Your task to perform on an android device: Go to location settings Image 0: 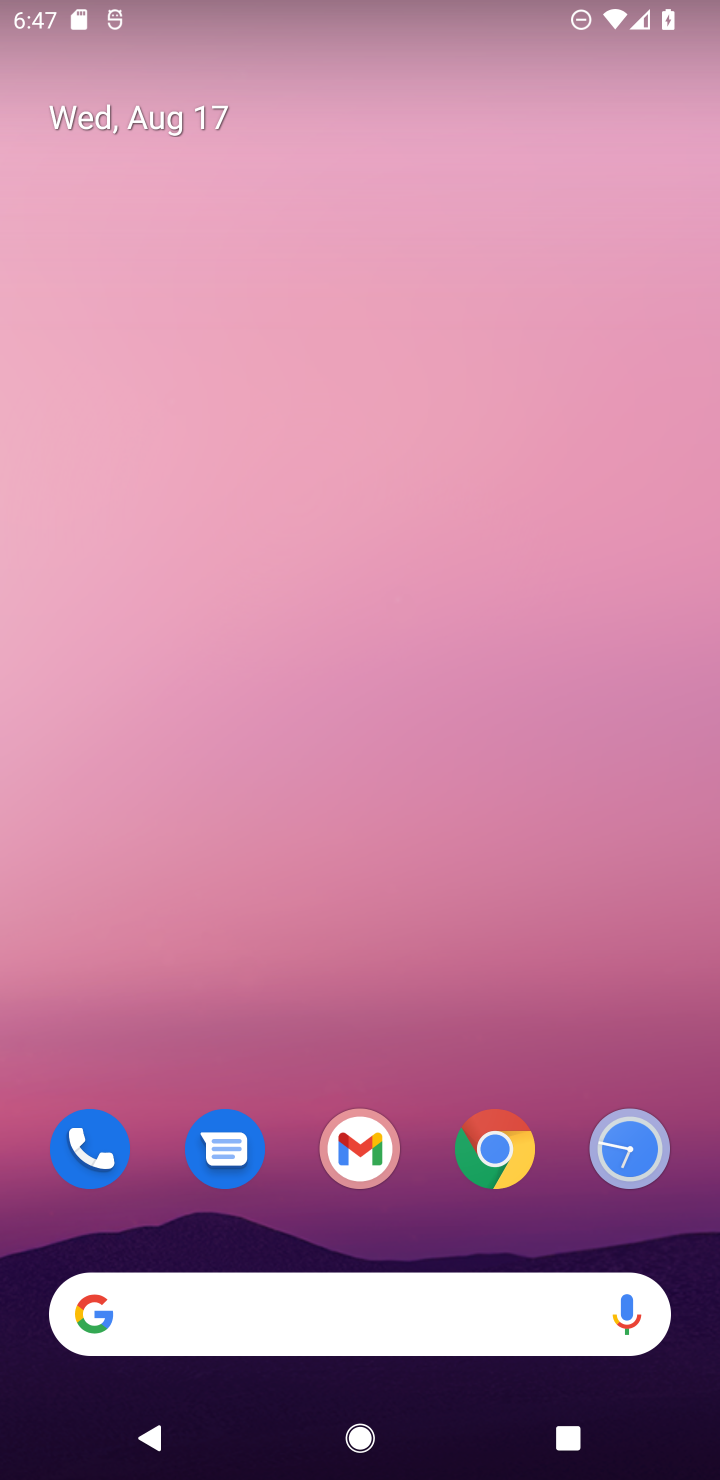
Step 0: drag from (418, 1245) to (671, 123)
Your task to perform on an android device: Go to location settings Image 1: 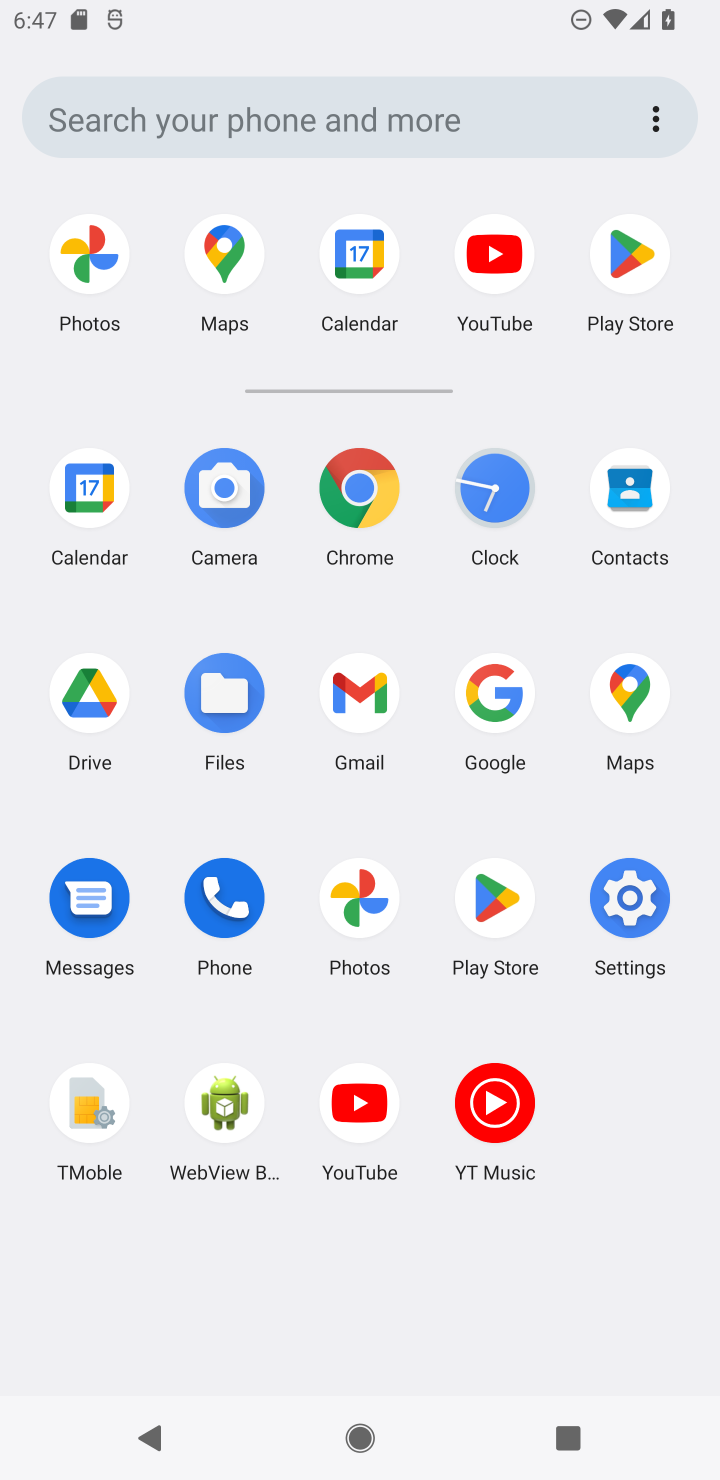
Step 1: click (627, 902)
Your task to perform on an android device: Go to location settings Image 2: 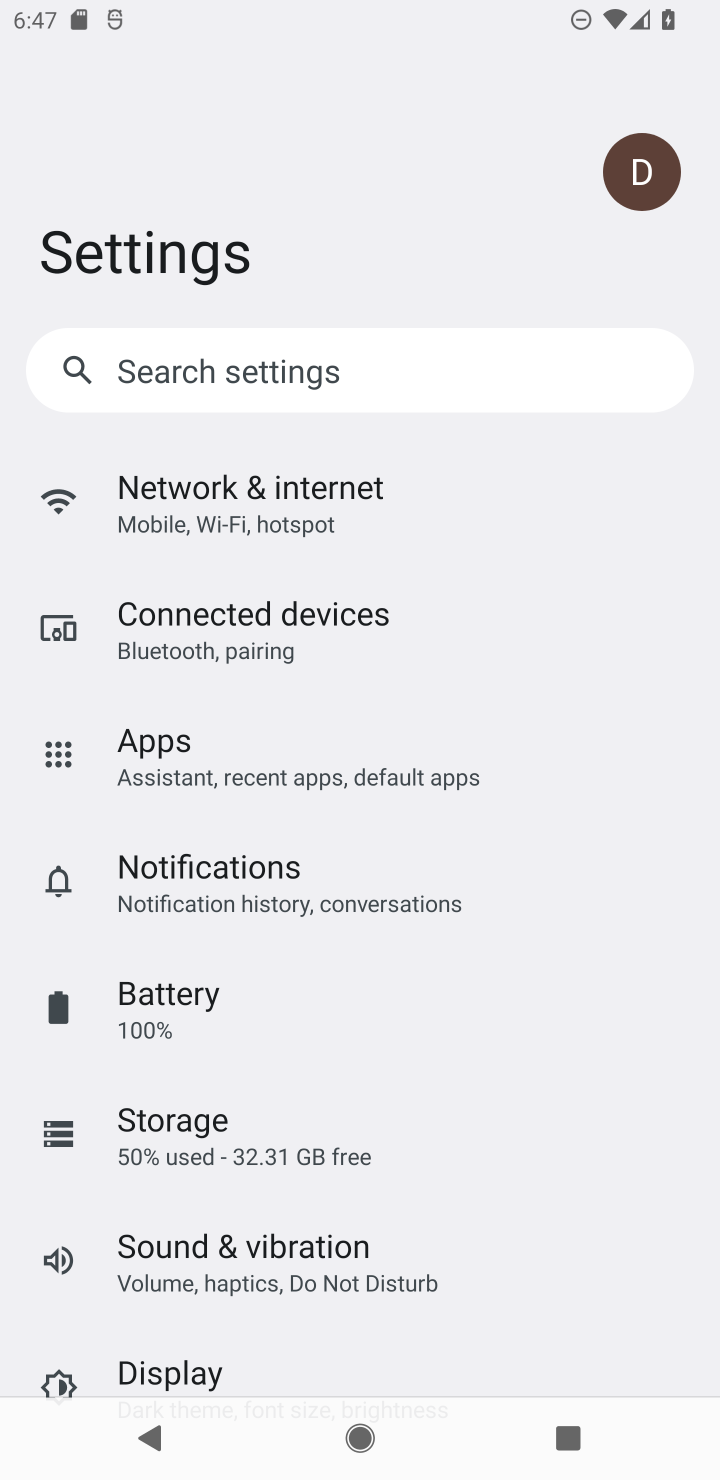
Step 2: drag from (429, 1208) to (418, 555)
Your task to perform on an android device: Go to location settings Image 3: 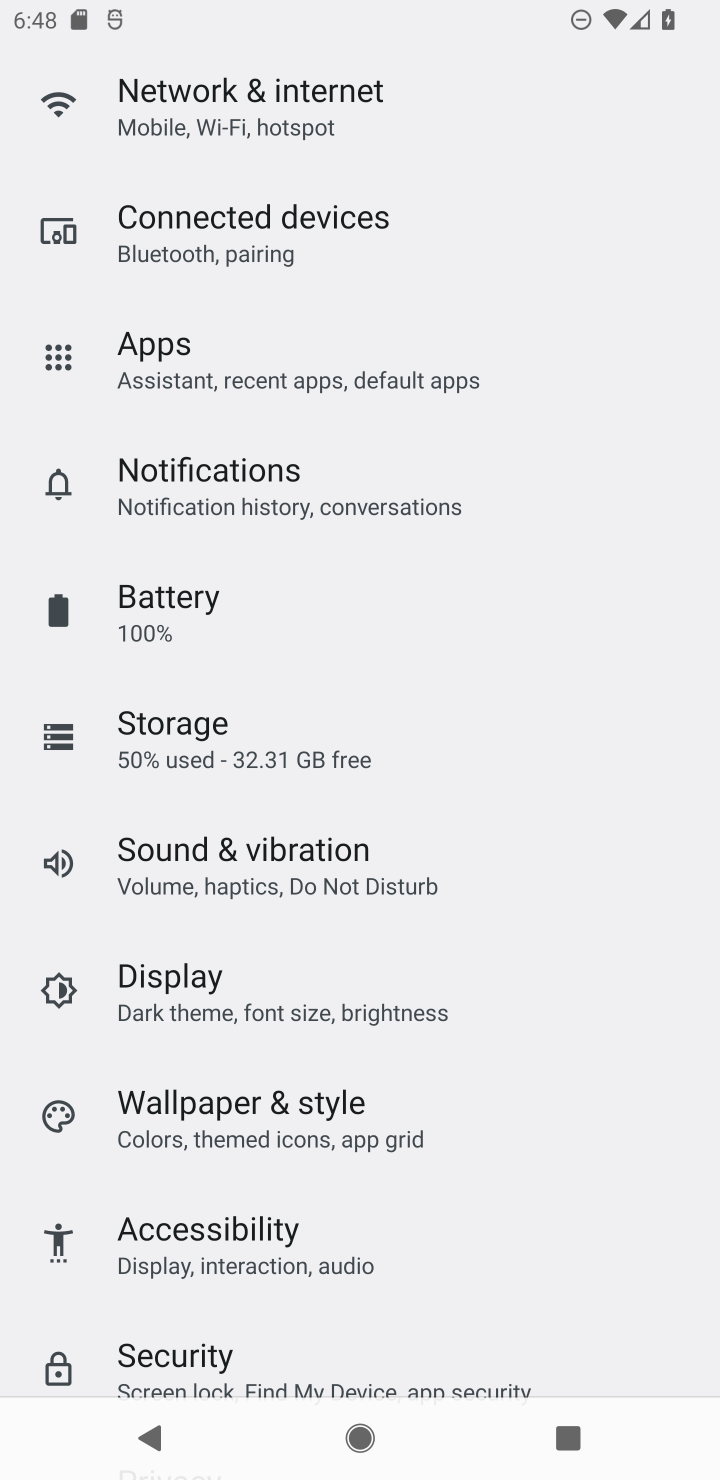
Step 3: drag from (402, 1236) to (432, 490)
Your task to perform on an android device: Go to location settings Image 4: 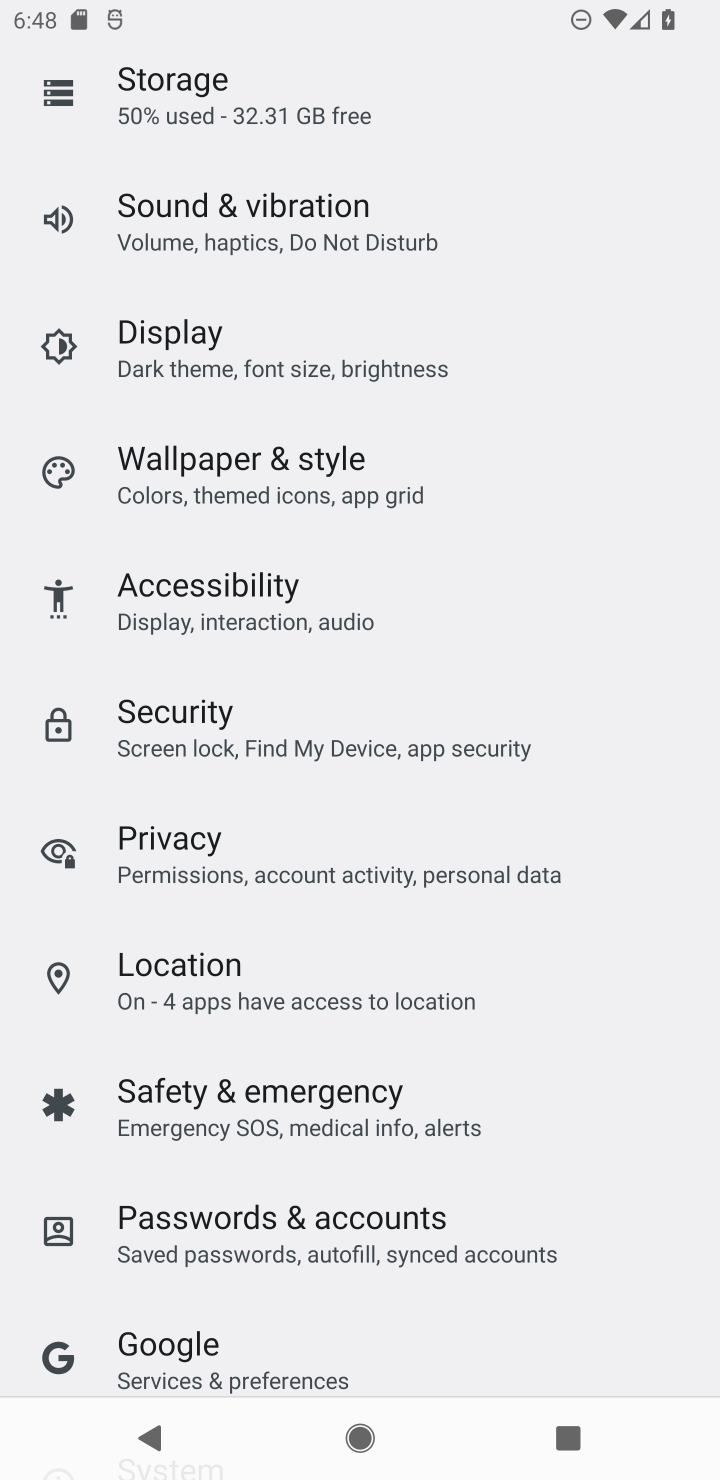
Step 4: click (176, 961)
Your task to perform on an android device: Go to location settings Image 5: 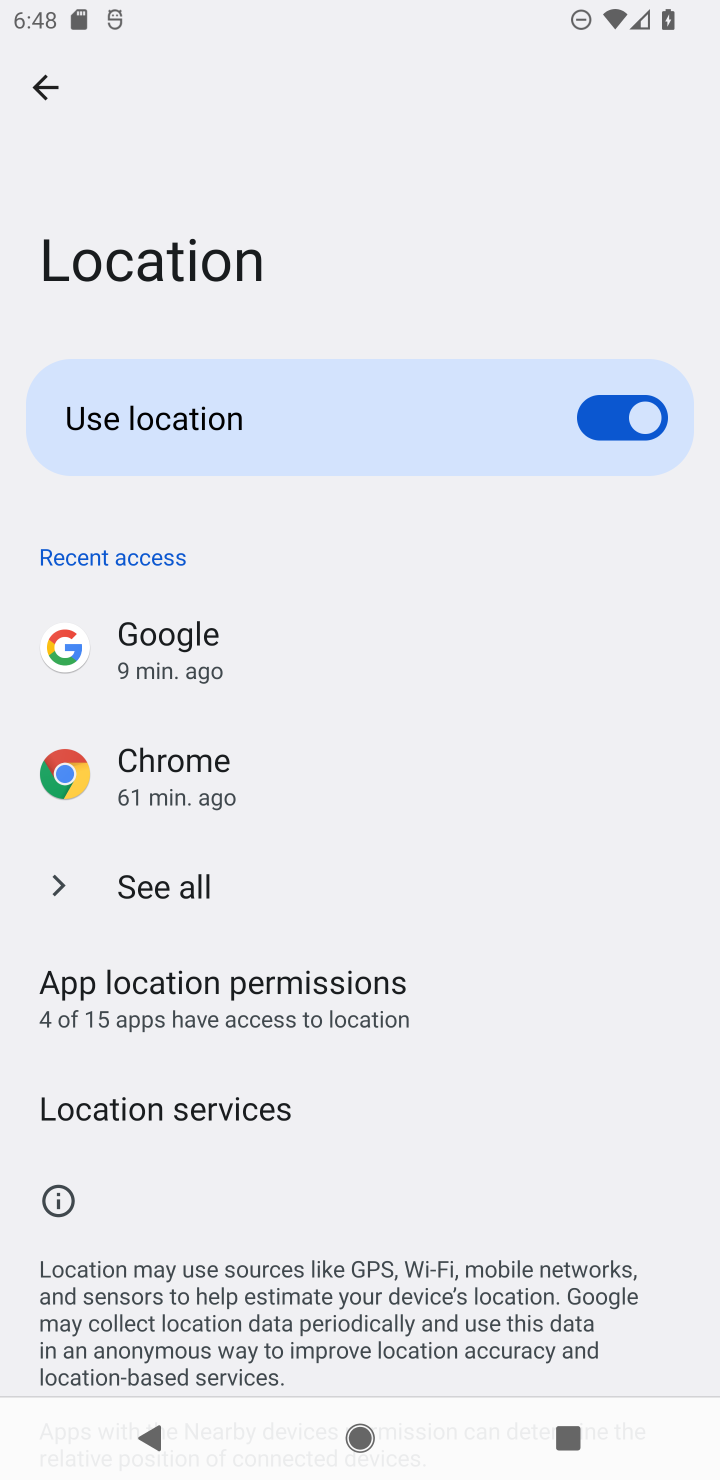
Step 5: task complete